Your task to perform on an android device: turn off airplane mode Image 0: 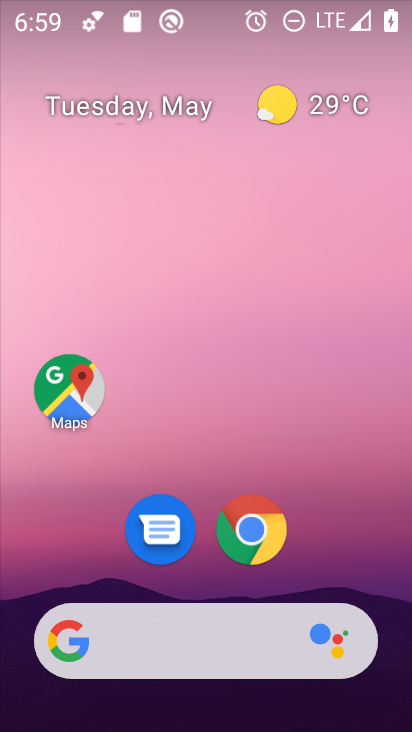
Step 0: drag from (294, 140) to (317, 427)
Your task to perform on an android device: turn off airplane mode Image 1: 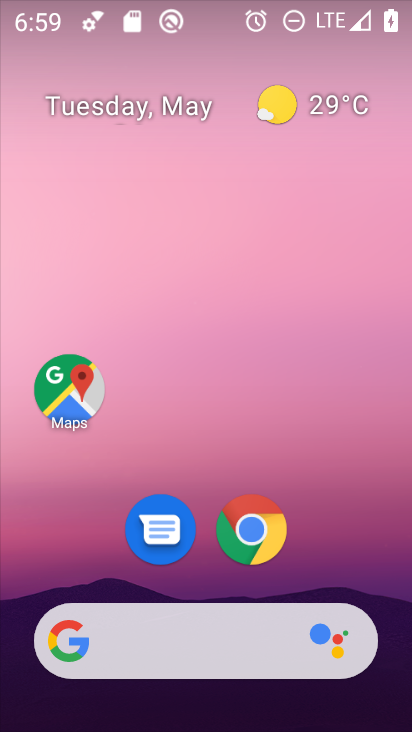
Step 1: task complete